Your task to perform on an android device: What's the weather going to be this weekend? Image 0: 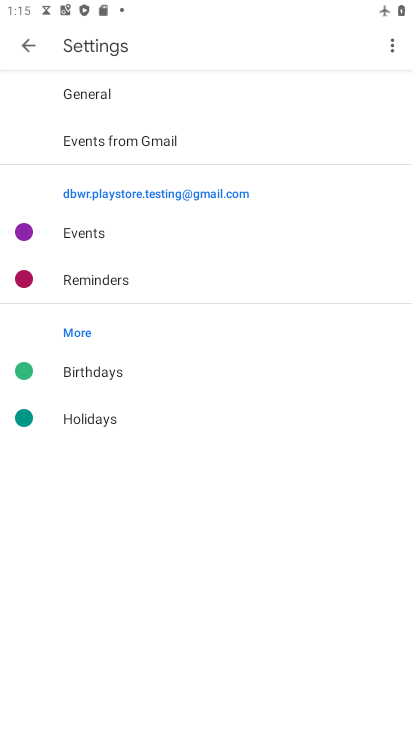
Step 0: click (25, 52)
Your task to perform on an android device: What's the weather going to be this weekend? Image 1: 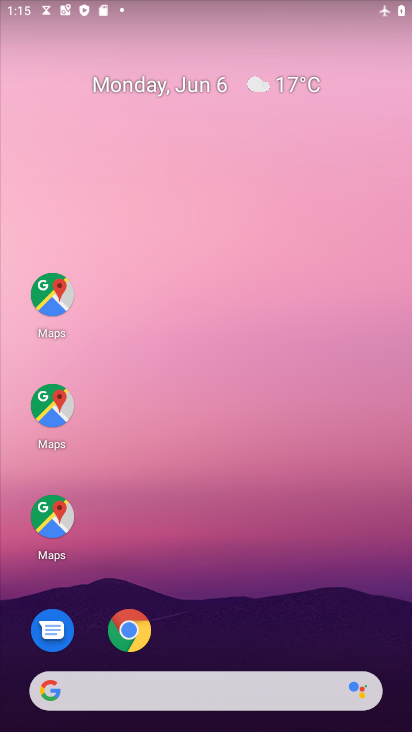
Step 1: drag from (14, 255) to (408, 588)
Your task to perform on an android device: What's the weather going to be this weekend? Image 2: 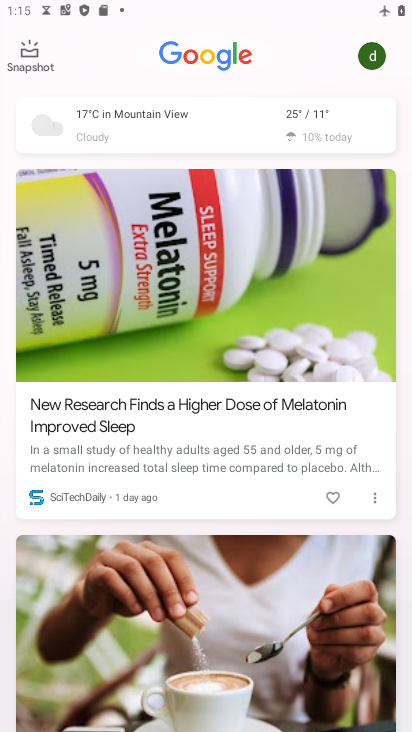
Step 2: click (106, 128)
Your task to perform on an android device: What's the weather going to be this weekend? Image 3: 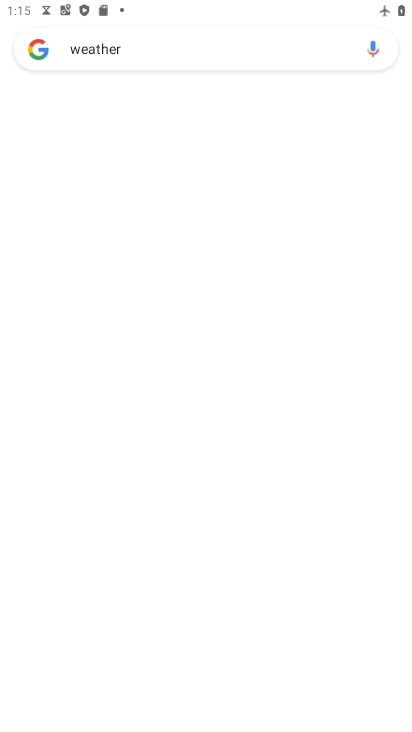
Step 3: click (177, 139)
Your task to perform on an android device: What's the weather going to be this weekend? Image 4: 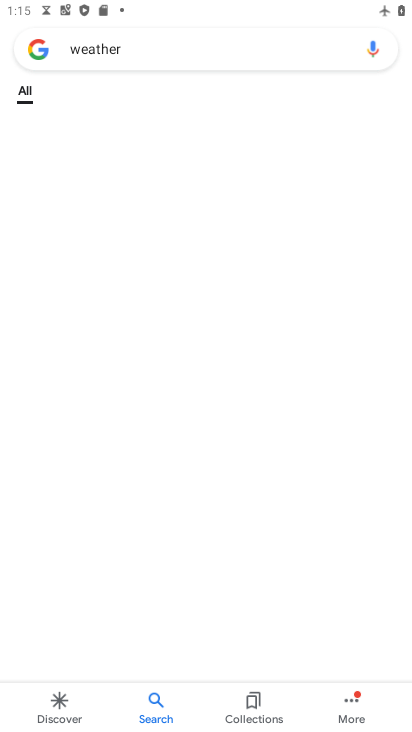
Step 4: click (177, 132)
Your task to perform on an android device: What's the weather going to be this weekend? Image 5: 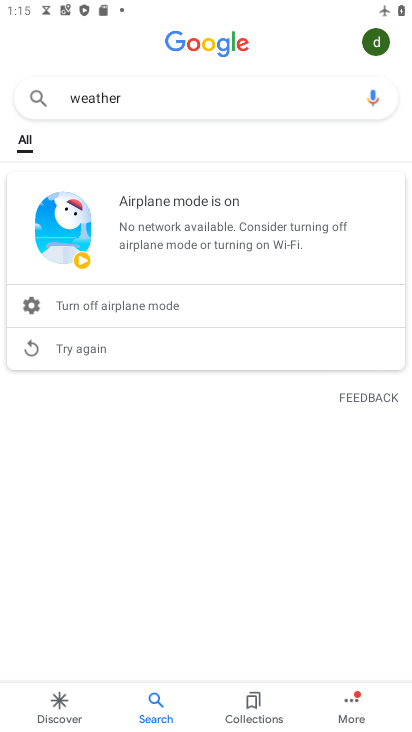
Step 5: task complete